Your task to perform on an android device: Open Youtube and go to the subscriptions tab Image 0: 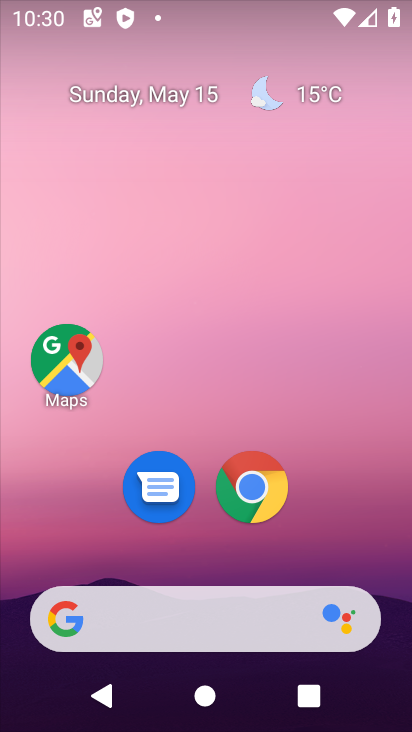
Step 0: drag from (400, 624) to (376, 148)
Your task to perform on an android device: Open Youtube and go to the subscriptions tab Image 1: 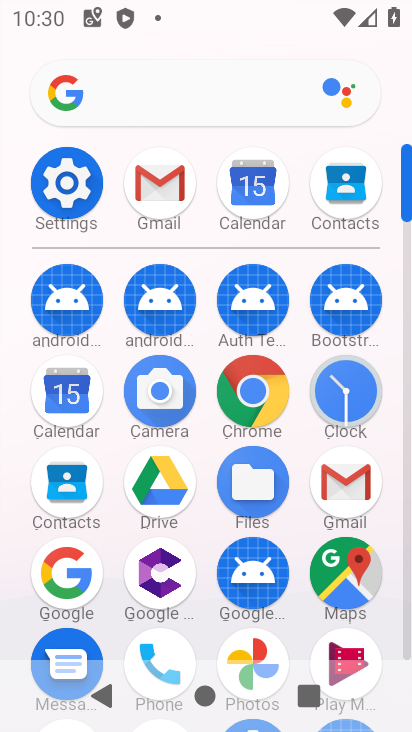
Step 1: click (407, 646)
Your task to perform on an android device: Open Youtube and go to the subscriptions tab Image 2: 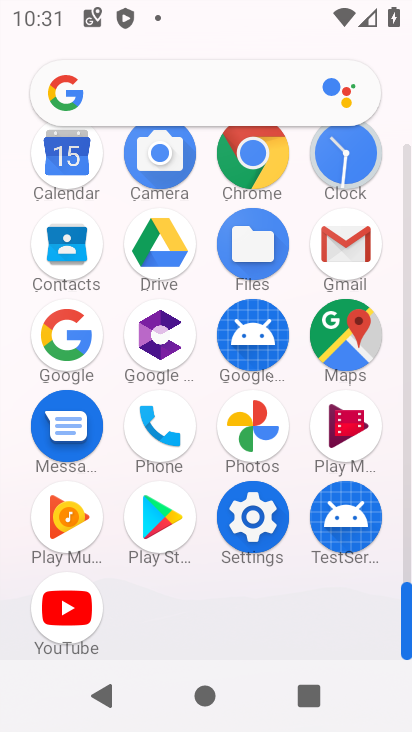
Step 2: click (58, 609)
Your task to perform on an android device: Open Youtube and go to the subscriptions tab Image 3: 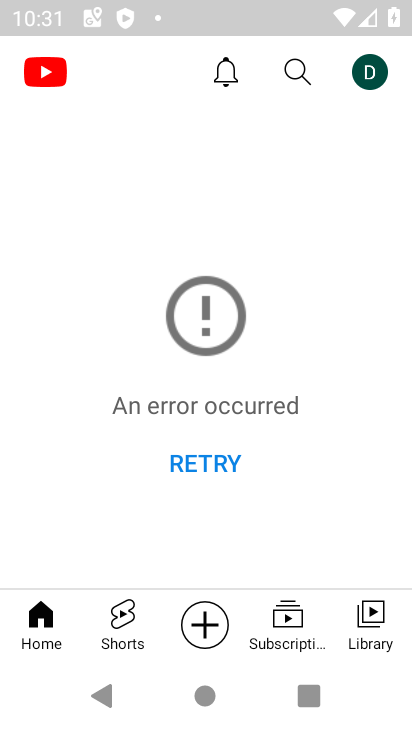
Step 3: click (287, 618)
Your task to perform on an android device: Open Youtube and go to the subscriptions tab Image 4: 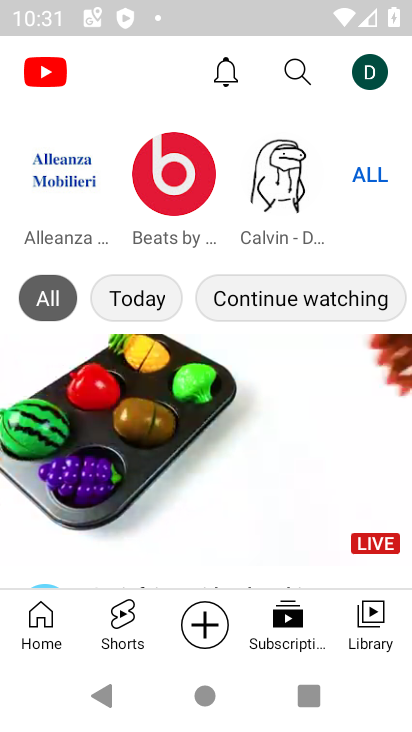
Step 4: task complete